Your task to perform on an android device: clear history in the chrome app Image 0: 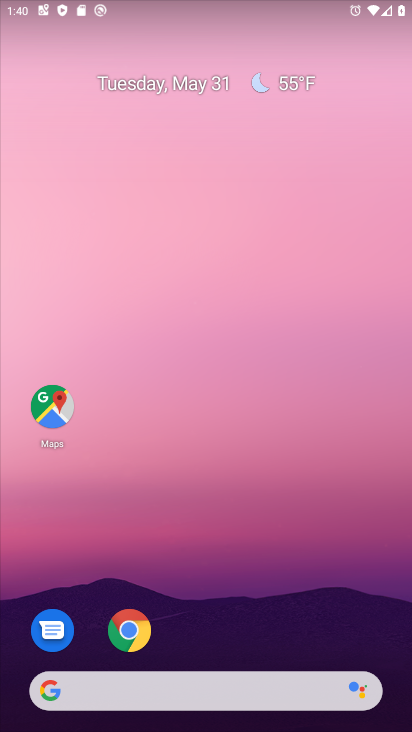
Step 0: drag from (238, 645) to (253, 118)
Your task to perform on an android device: clear history in the chrome app Image 1: 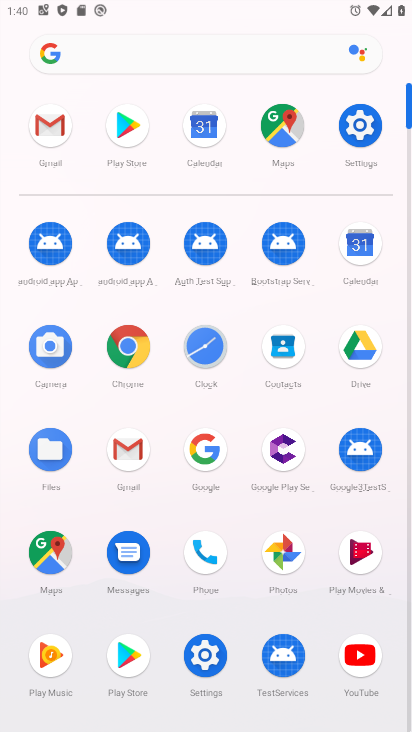
Step 1: click (132, 350)
Your task to perform on an android device: clear history in the chrome app Image 2: 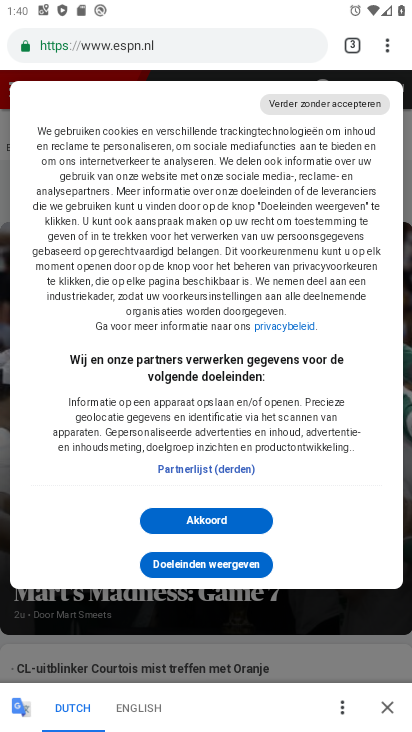
Step 2: click (394, 43)
Your task to perform on an android device: clear history in the chrome app Image 3: 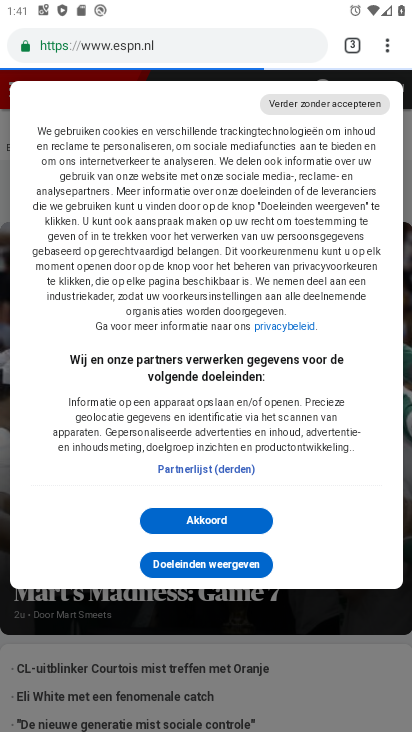
Step 3: click (384, 48)
Your task to perform on an android device: clear history in the chrome app Image 4: 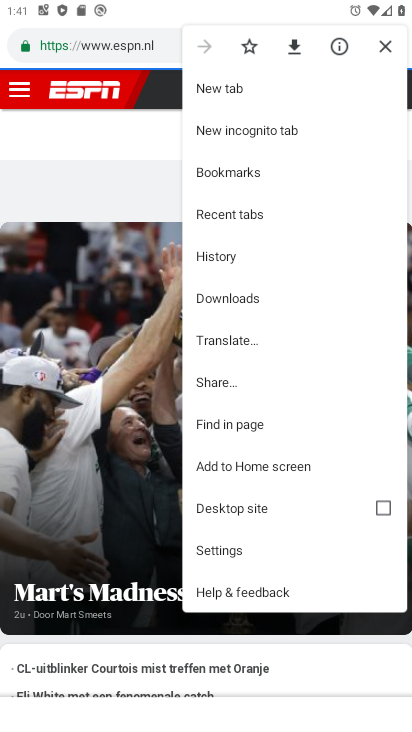
Step 4: click (219, 259)
Your task to perform on an android device: clear history in the chrome app Image 5: 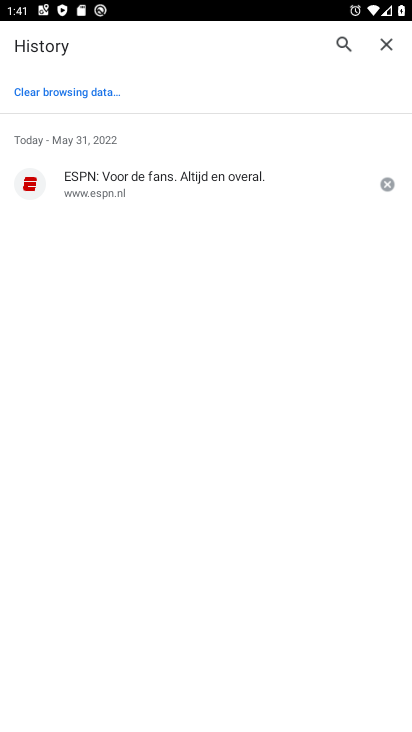
Step 5: click (71, 85)
Your task to perform on an android device: clear history in the chrome app Image 6: 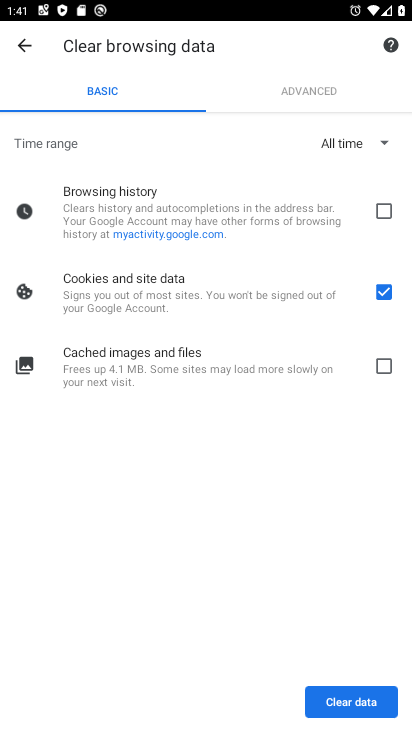
Step 6: click (384, 360)
Your task to perform on an android device: clear history in the chrome app Image 7: 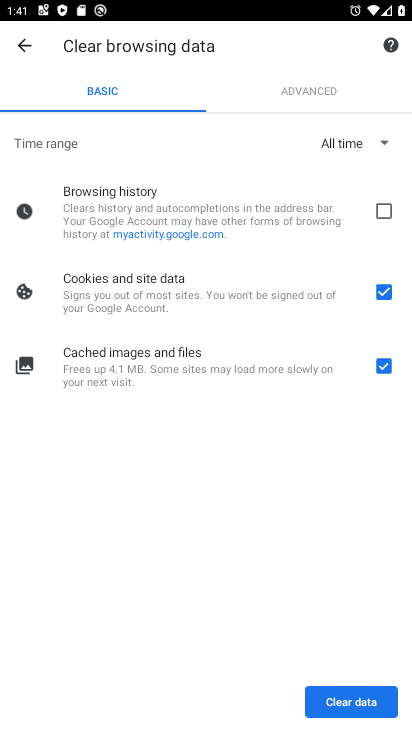
Step 7: click (379, 213)
Your task to perform on an android device: clear history in the chrome app Image 8: 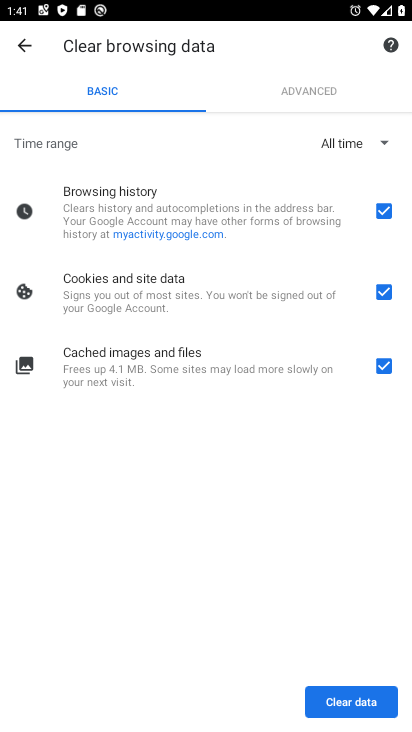
Step 8: click (356, 711)
Your task to perform on an android device: clear history in the chrome app Image 9: 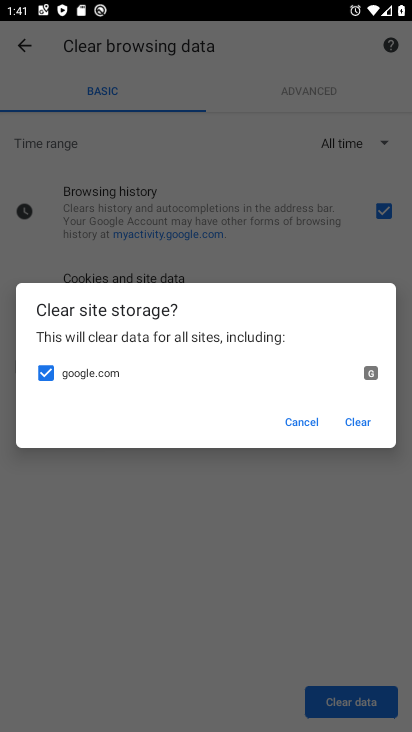
Step 9: click (348, 418)
Your task to perform on an android device: clear history in the chrome app Image 10: 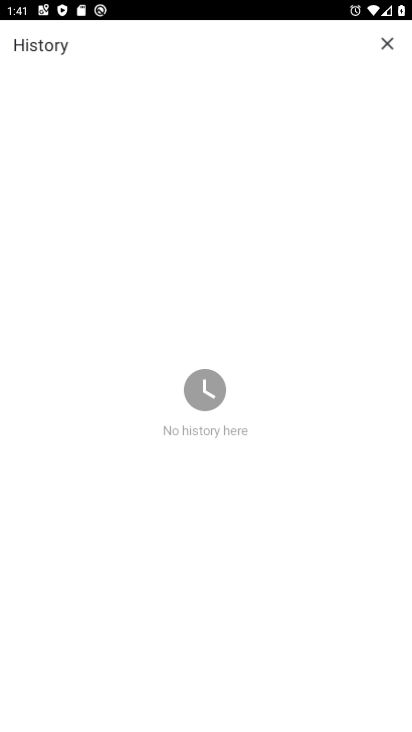
Step 10: task complete